Your task to perform on an android device: Open the web browser Image 0: 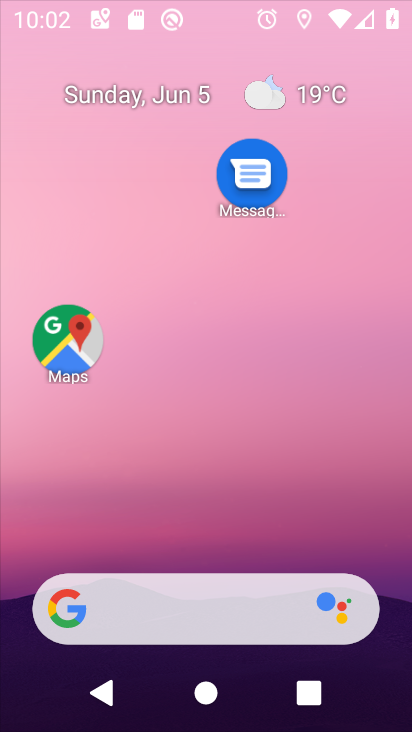
Step 0: drag from (193, 507) to (188, 10)
Your task to perform on an android device: Open the web browser Image 1: 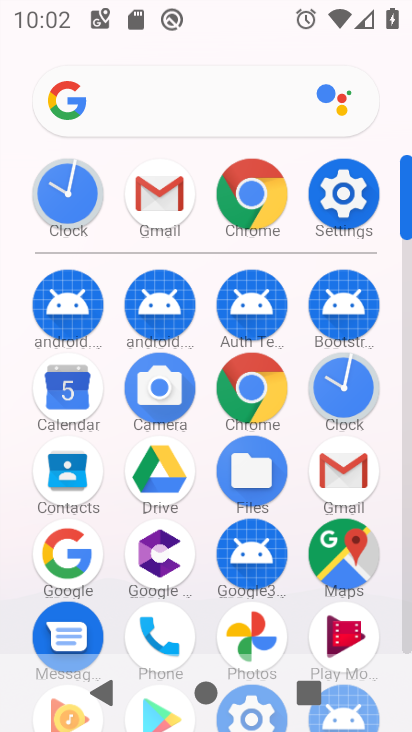
Step 1: click (255, 201)
Your task to perform on an android device: Open the web browser Image 2: 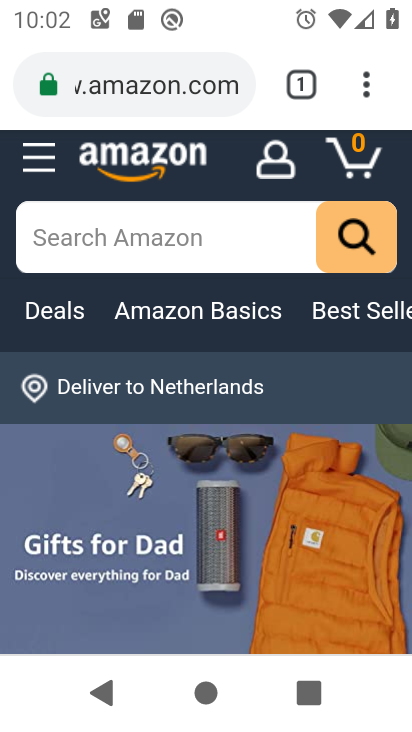
Step 2: click (372, 89)
Your task to perform on an android device: Open the web browser Image 3: 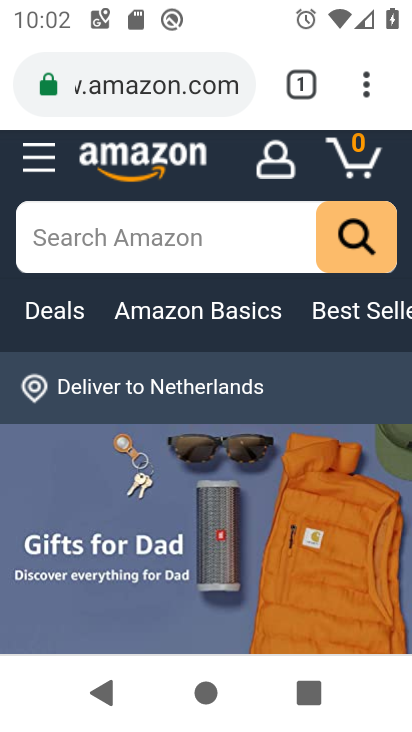
Step 3: click (367, 87)
Your task to perform on an android device: Open the web browser Image 4: 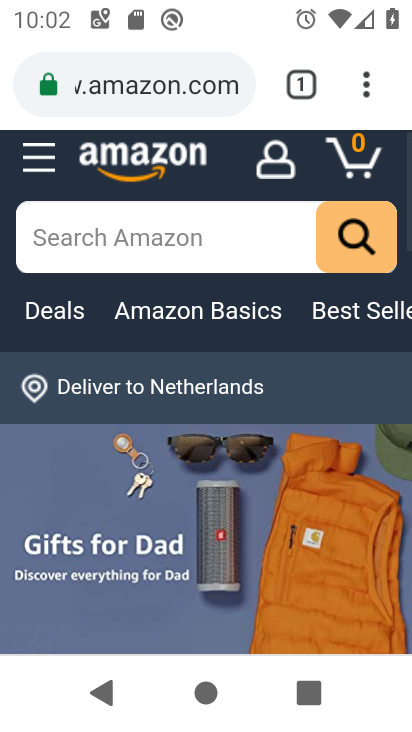
Step 4: click (363, 87)
Your task to perform on an android device: Open the web browser Image 5: 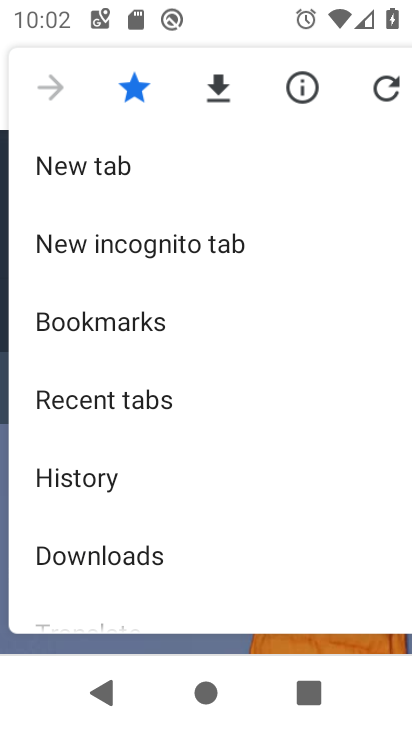
Step 5: task complete